Your task to perform on an android device: toggle notification dots Image 0: 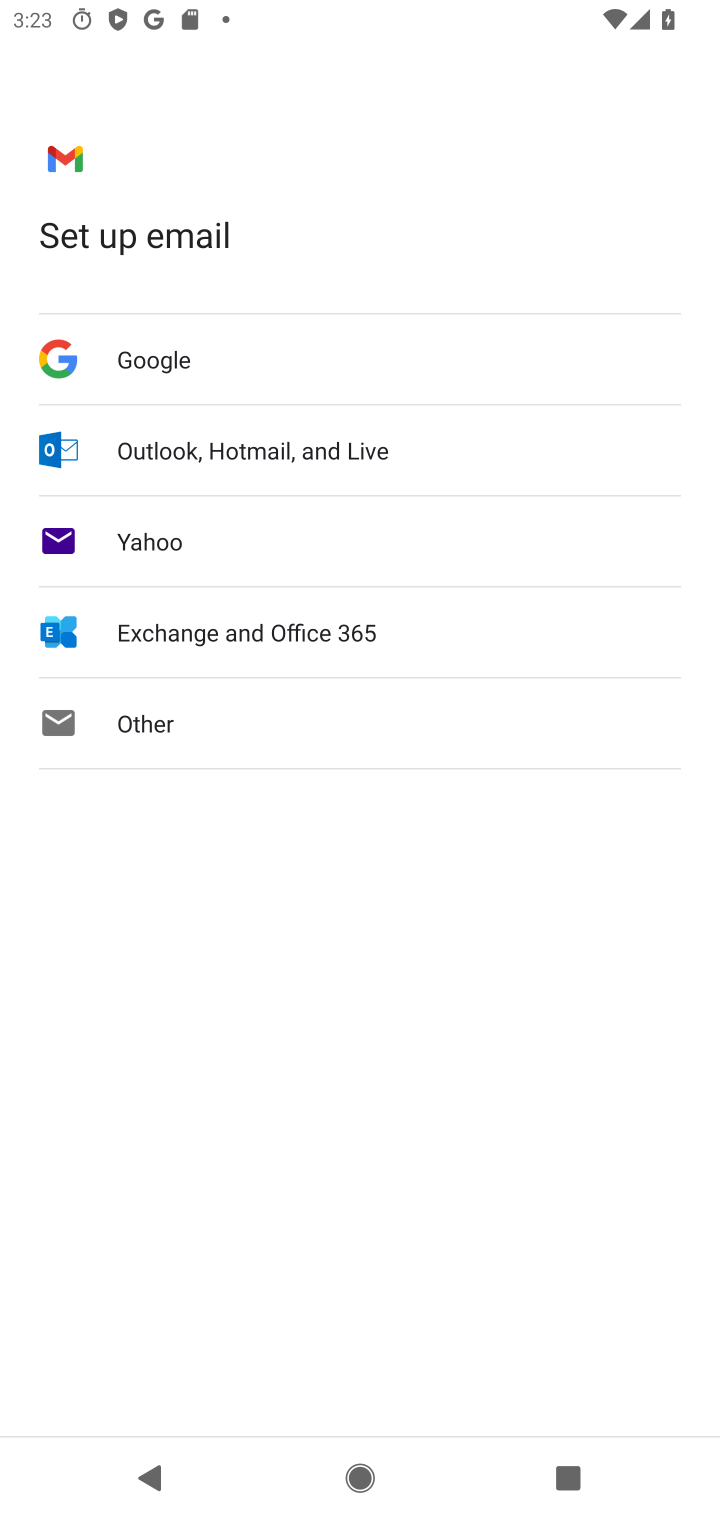
Step 0: press back button
Your task to perform on an android device: toggle notification dots Image 1: 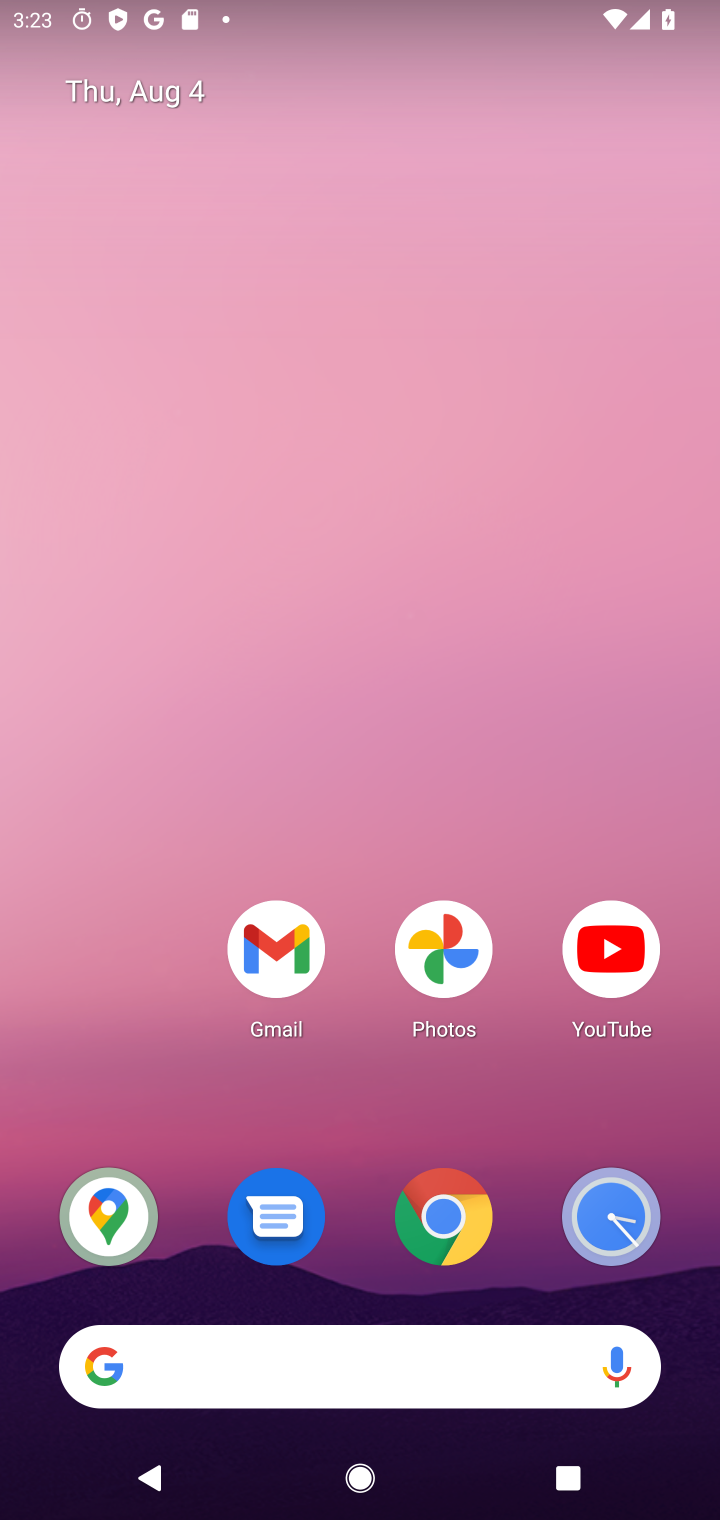
Step 1: drag from (99, 1096) to (22, 48)
Your task to perform on an android device: toggle notification dots Image 2: 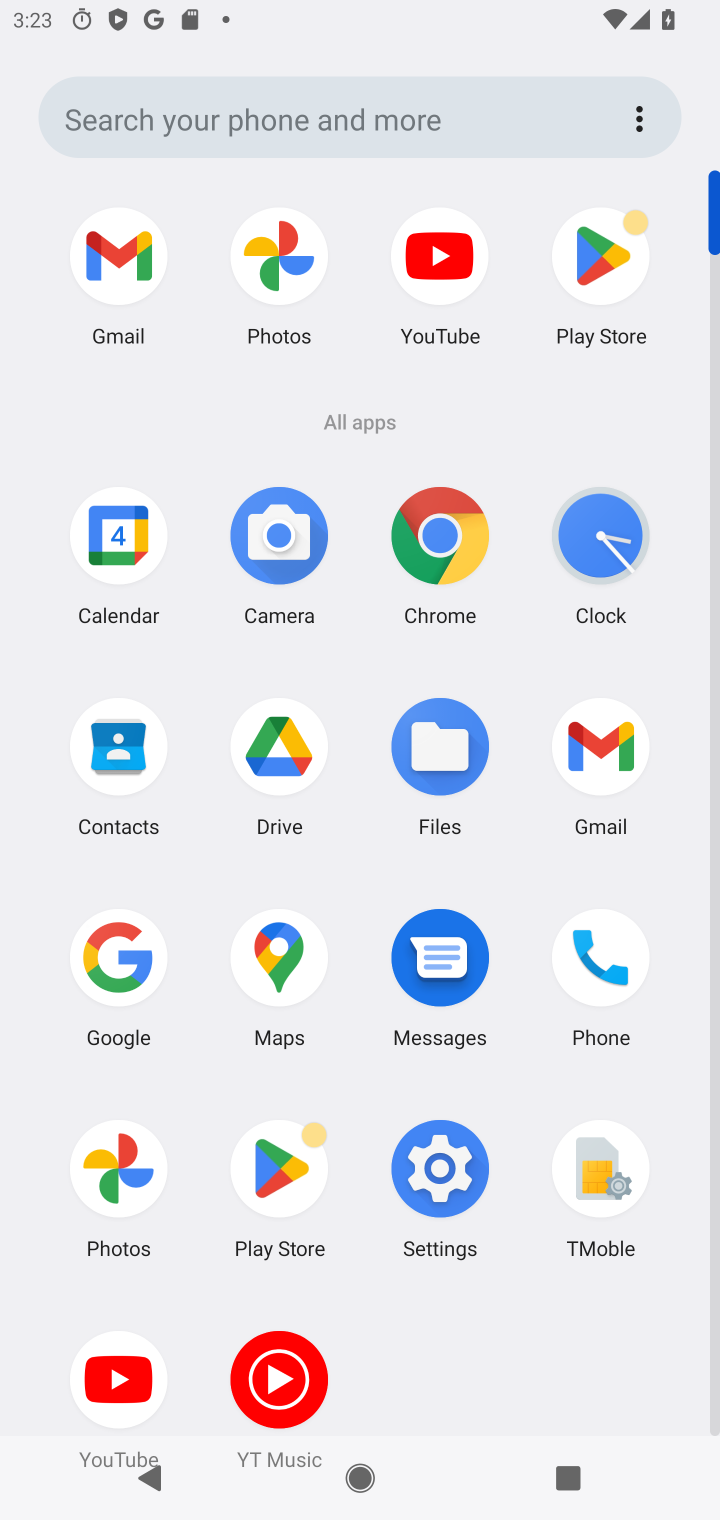
Step 2: click (458, 1160)
Your task to perform on an android device: toggle notification dots Image 3: 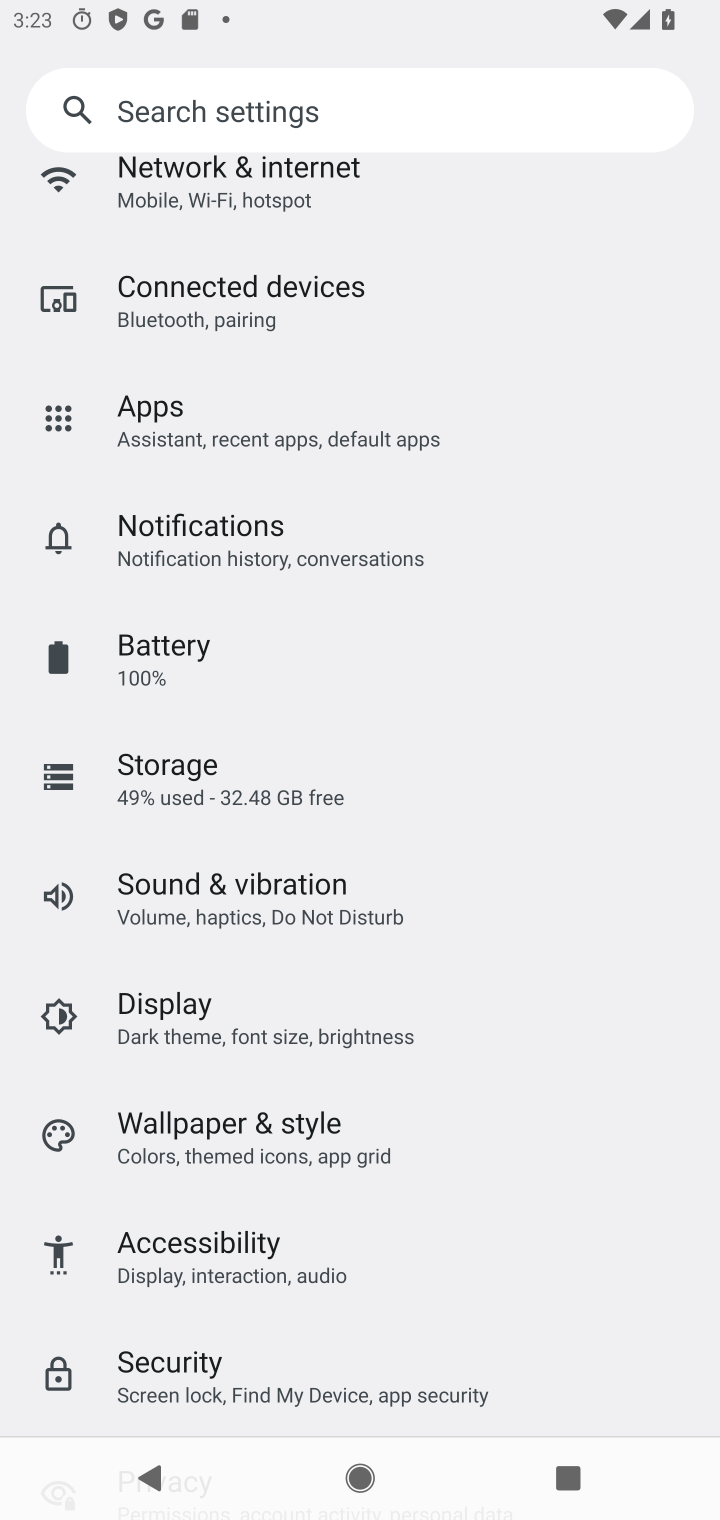
Step 3: click (237, 566)
Your task to perform on an android device: toggle notification dots Image 4: 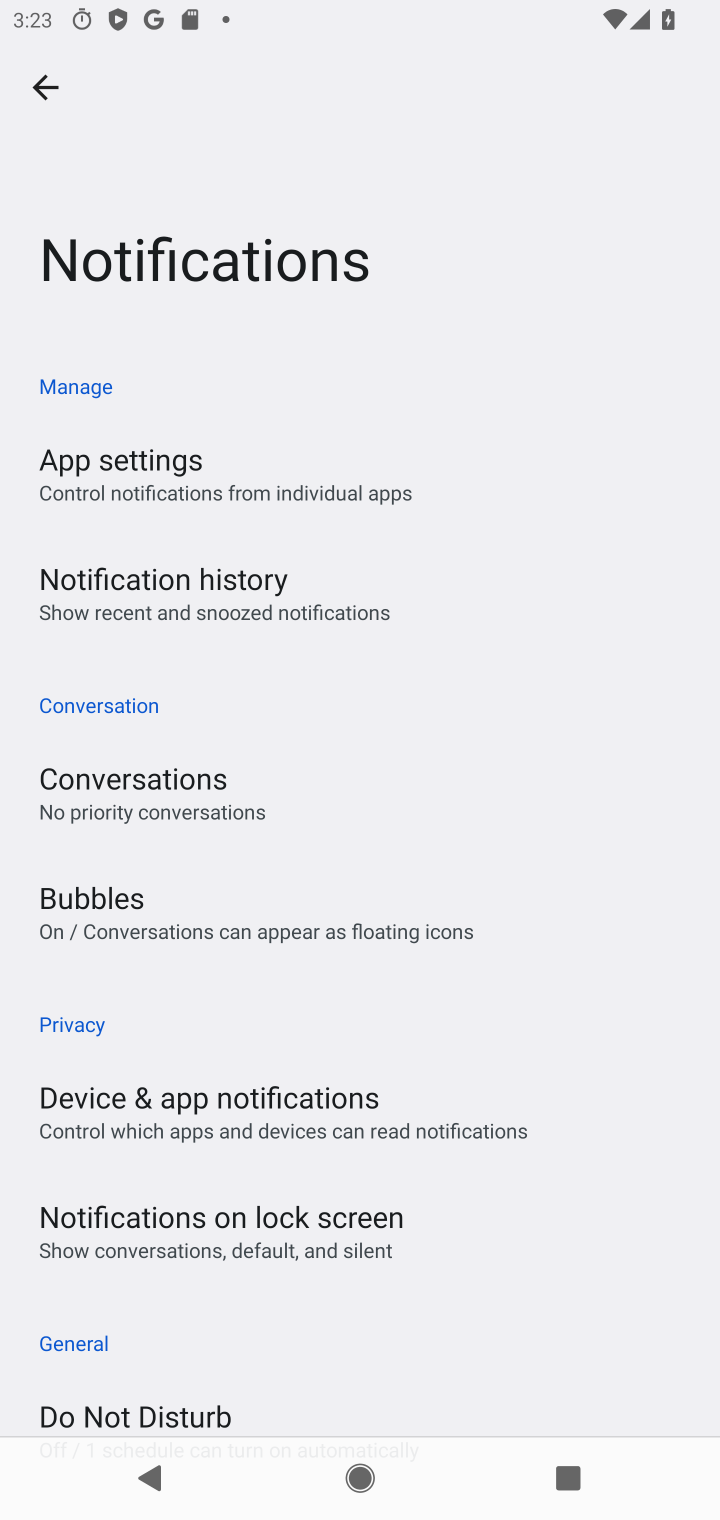
Step 4: task complete